Your task to perform on an android device: set the stopwatch Image 0: 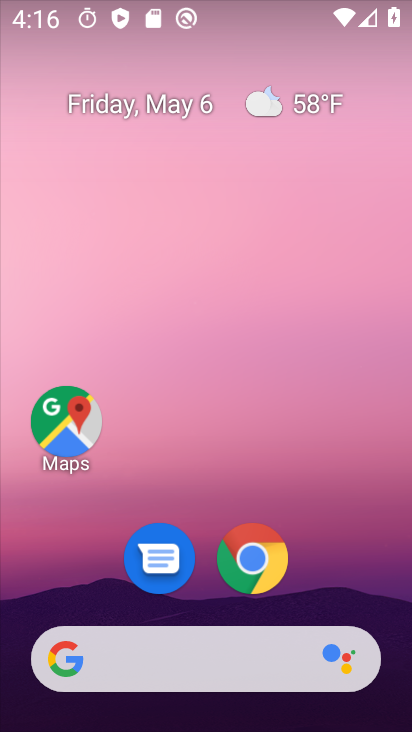
Step 0: drag from (341, 610) to (322, 35)
Your task to perform on an android device: set the stopwatch Image 1: 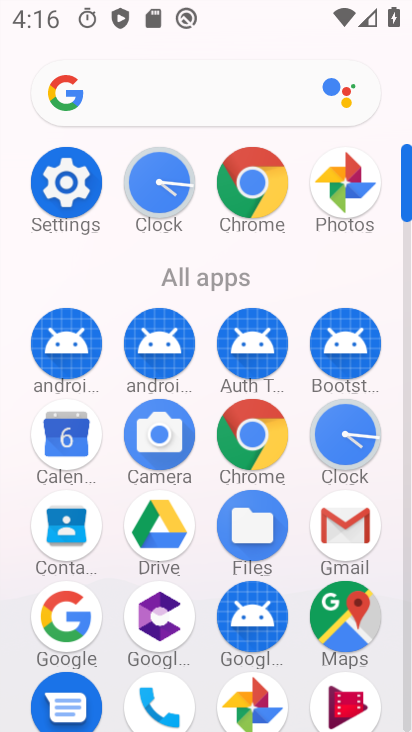
Step 1: click (344, 432)
Your task to perform on an android device: set the stopwatch Image 2: 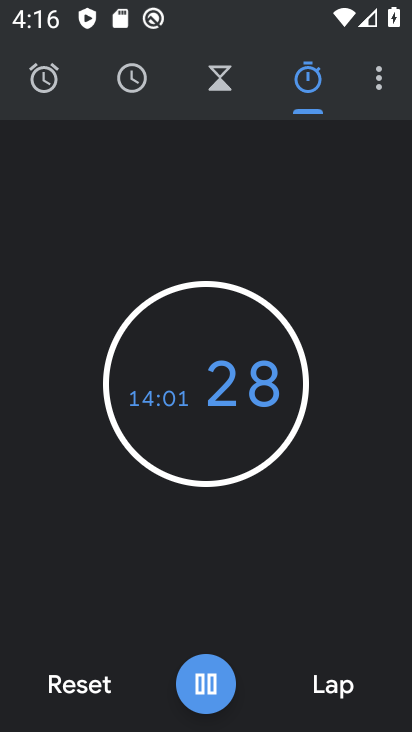
Step 2: click (101, 682)
Your task to perform on an android device: set the stopwatch Image 3: 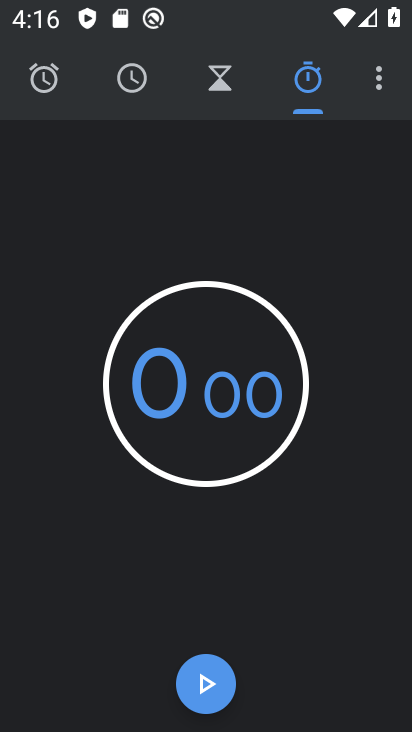
Step 3: click (218, 690)
Your task to perform on an android device: set the stopwatch Image 4: 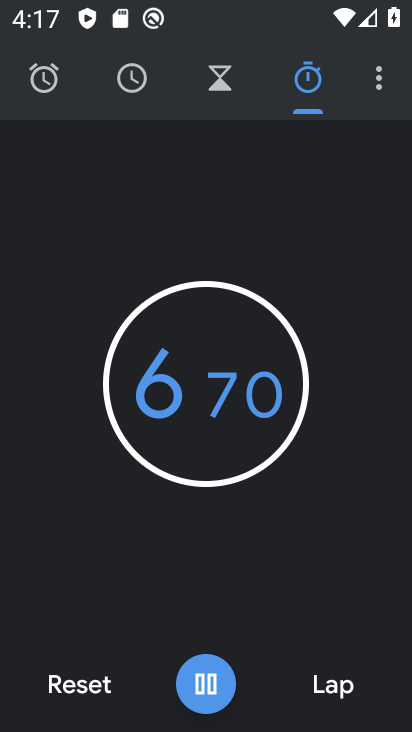
Step 4: task complete